Your task to perform on an android device: toggle notifications settings in the gmail app Image 0: 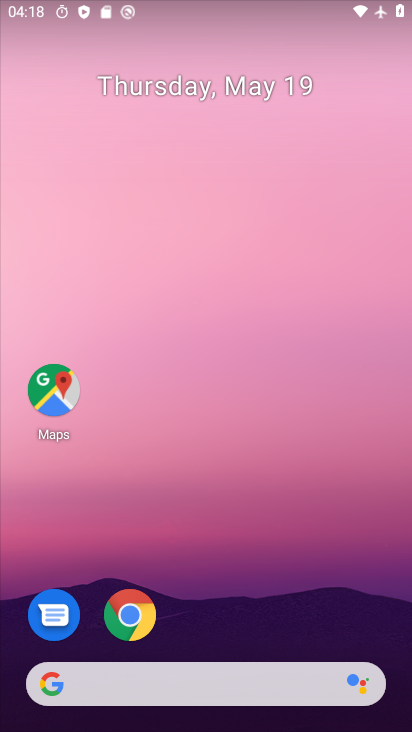
Step 0: drag from (253, 636) to (263, 18)
Your task to perform on an android device: toggle notifications settings in the gmail app Image 1: 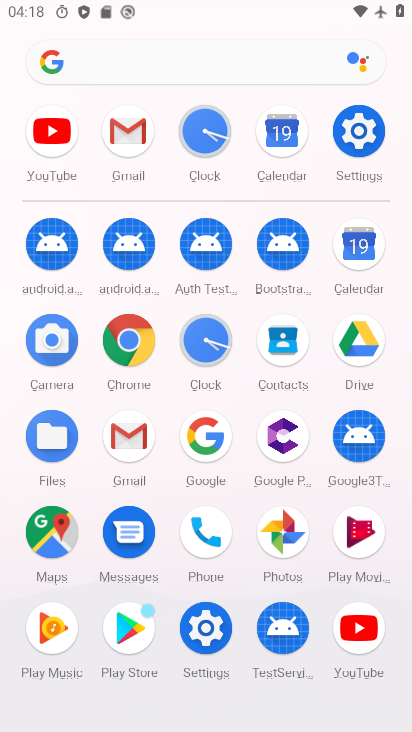
Step 1: click (127, 143)
Your task to perform on an android device: toggle notifications settings in the gmail app Image 2: 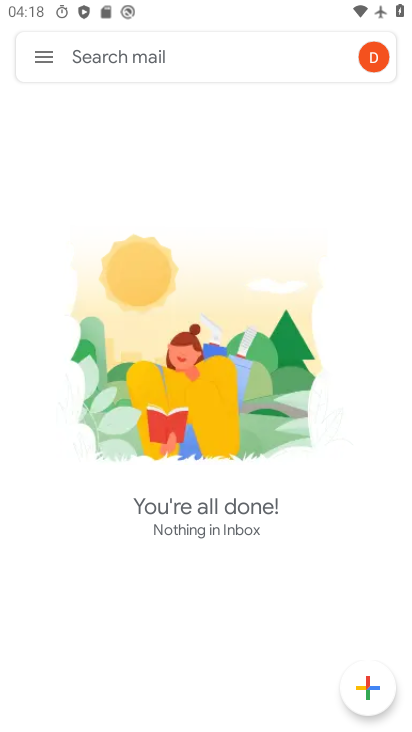
Step 2: click (43, 62)
Your task to perform on an android device: toggle notifications settings in the gmail app Image 3: 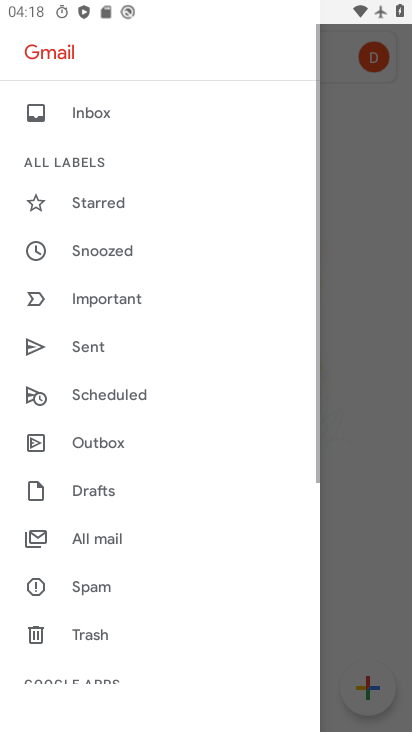
Step 3: drag from (149, 652) to (157, 188)
Your task to perform on an android device: toggle notifications settings in the gmail app Image 4: 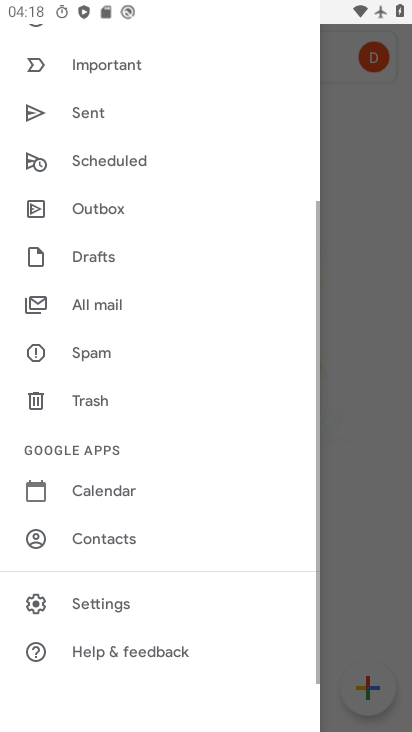
Step 4: click (99, 611)
Your task to perform on an android device: toggle notifications settings in the gmail app Image 5: 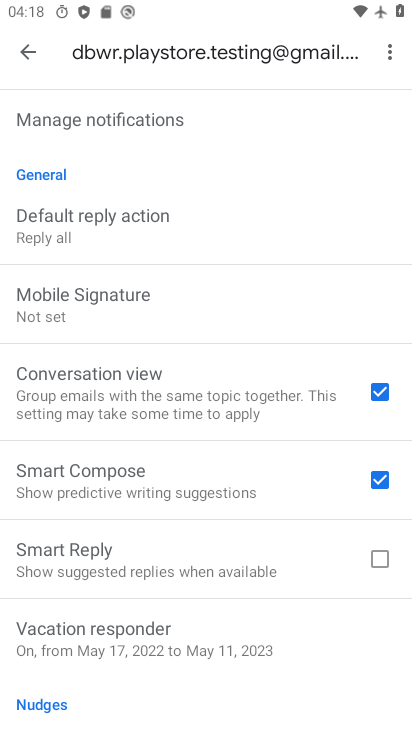
Step 5: click (28, 53)
Your task to perform on an android device: toggle notifications settings in the gmail app Image 6: 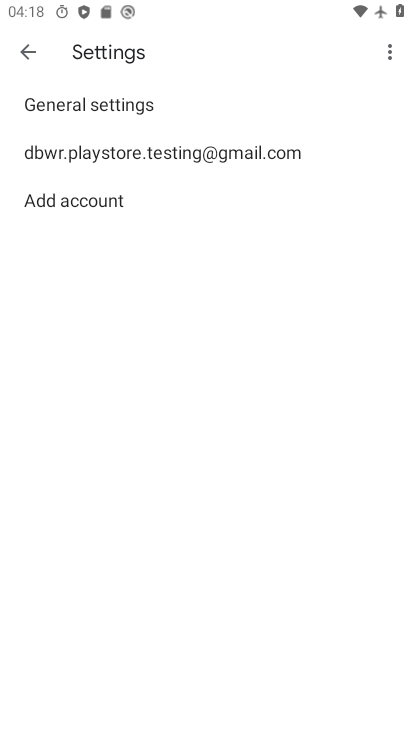
Step 6: click (64, 105)
Your task to perform on an android device: toggle notifications settings in the gmail app Image 7: 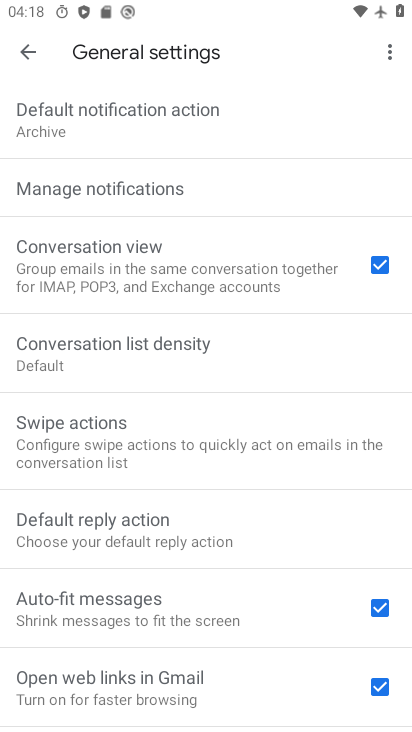
Step 7: click (99, 190)
Your task to perform on an android device: toggle notifications settings in the gmail app Image 8: 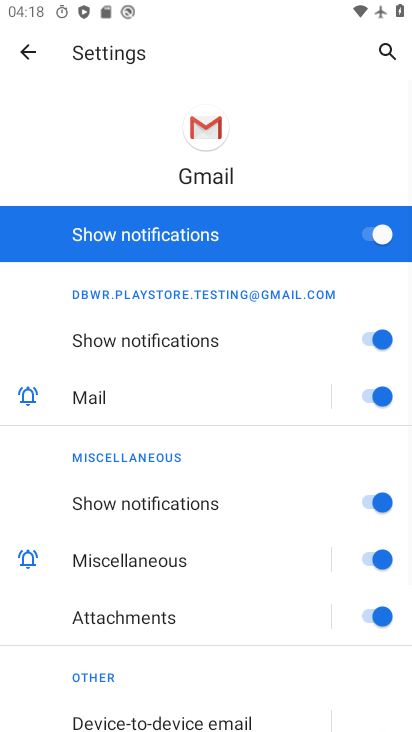
Step 8: click (376, 240)
Your task to perform on an android device: toggle notifications settings in the gmail app Image 9: 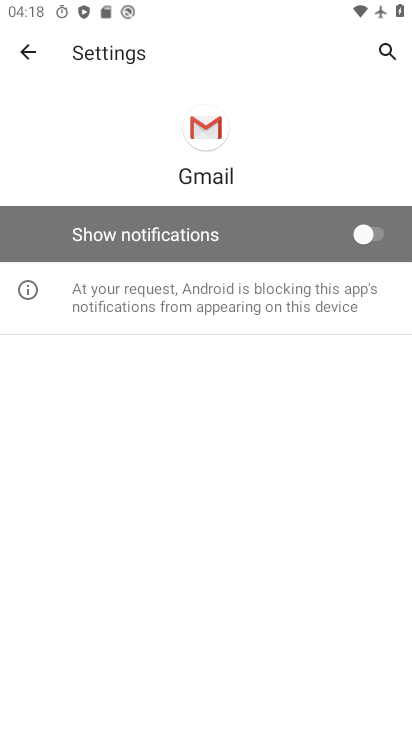
Step 9: task complete